Your task to perform on an android device: Open maps Image 0: 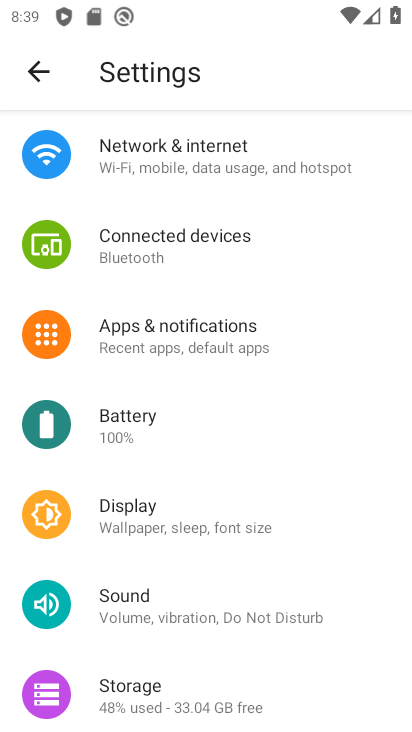
Step 0: press home button
Your task to perform on an android device: Open maps Image 1: 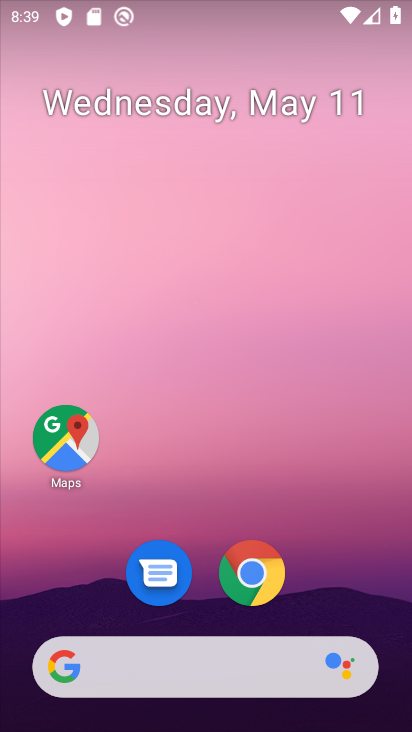
Step 1: click (320, 590)
Your task to perform on an android device: Open maps Image 2: 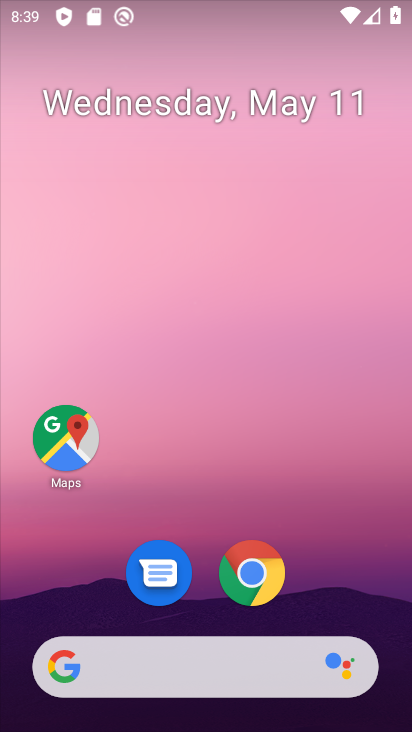
Step 2: click (68, 436)
Your task to perform on an android device: Open maps Image 3: 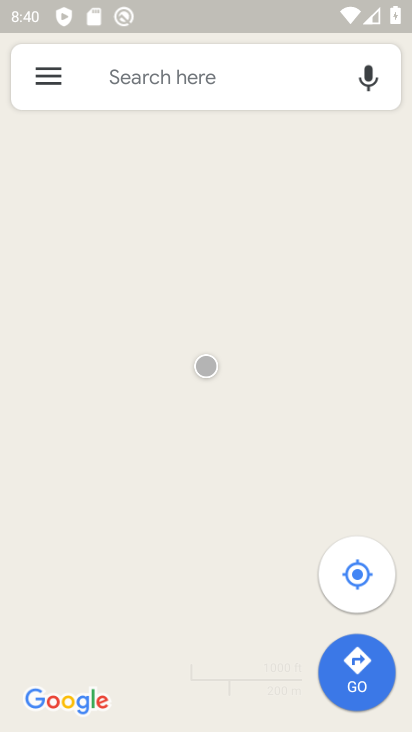
Step 3: task complete